Your task to perform on an android device: turn off notifications in google photos Image 0: 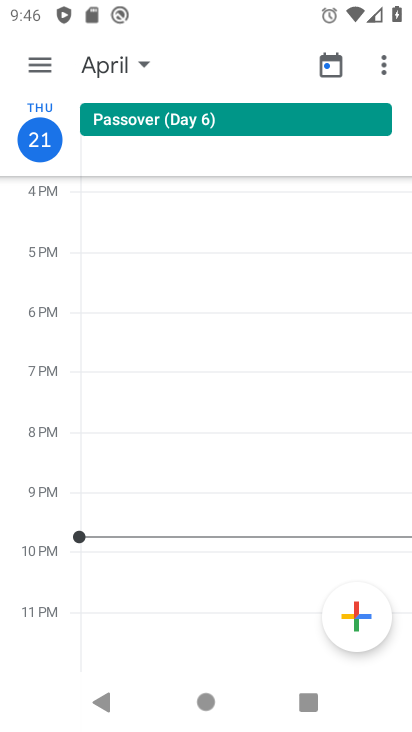
Step 0: press home button
Your task to perform on an android device: turn off notifications in google photos Image 1: 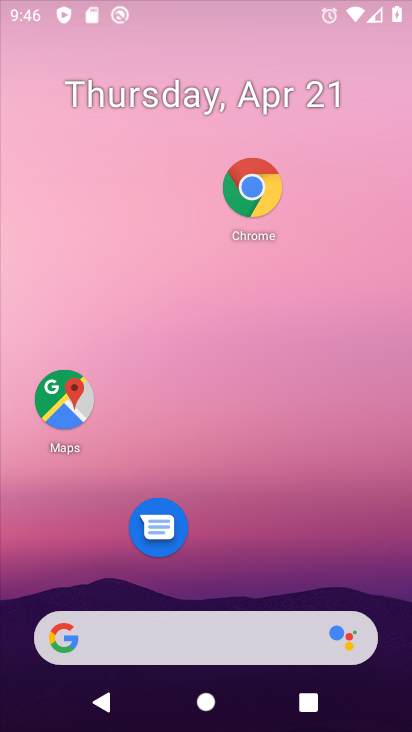
Step 1: drag from (259, 612) to (340, 105)
Your task to perform on an android device: turn off notifications in google photos Image 2: 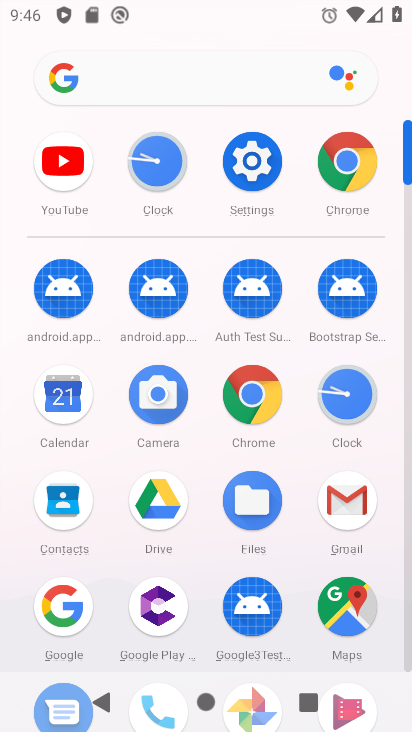
Step 2: click (410, 568)
Your task to perform on an android device: turn off notifications in google photos Image 3: 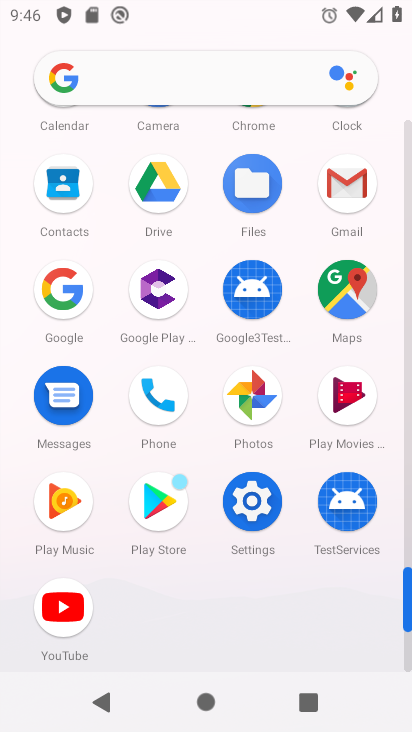
Step 3: click (249, 411)
Your task to perform on an android device: turn off notifications in google photos Image 4: 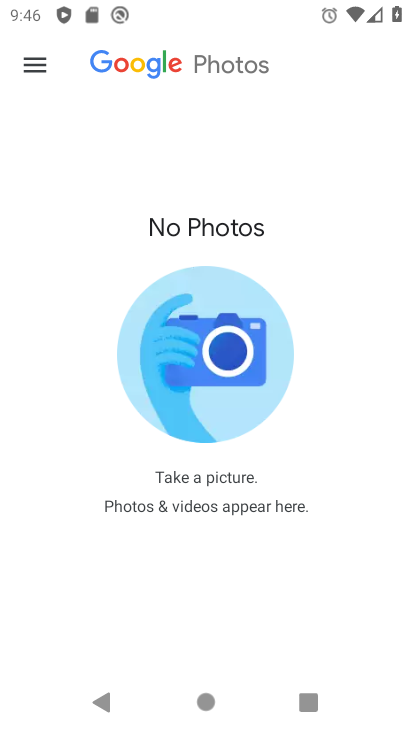
Step 4: click (44, 68)
Your task to perform on an android device: turn off notifications in google photos Image 5: 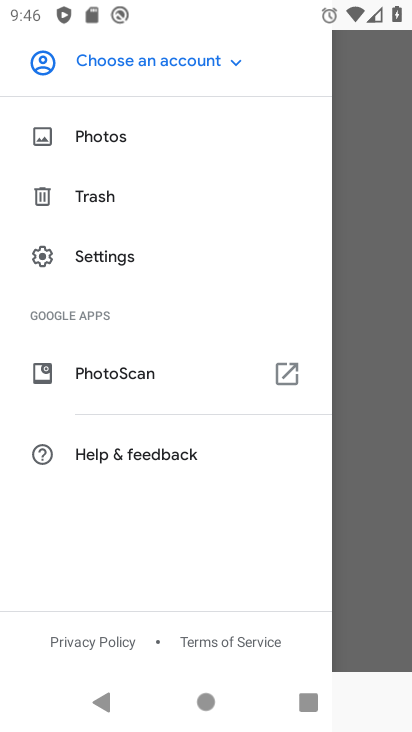
Step 5: click (145, 258)
Your task to perform on an android device: turn off notifications in google photos Image 6: 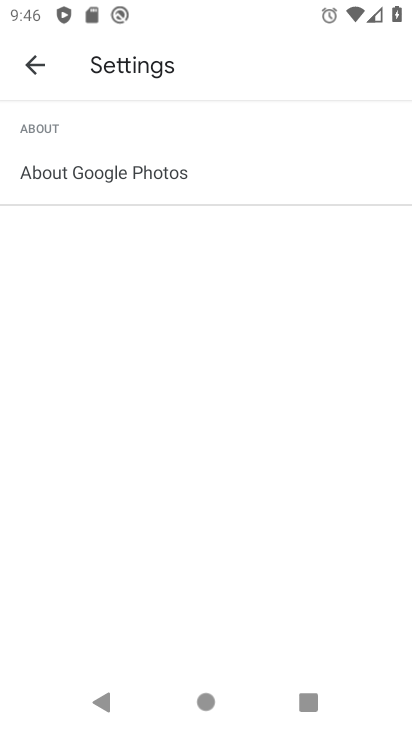
Step 6: click (39, 57)
Your task to perform on an android device: turn off notifications in google photos Image 7: 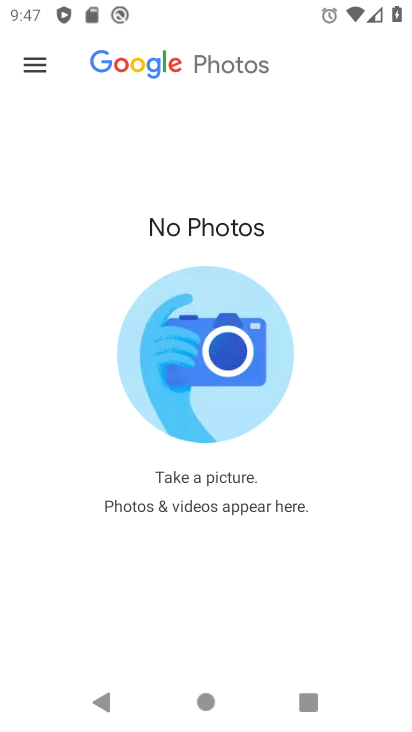
Step 7: click (30, 60)
Your task to perform on an android device: turn off notifications in google photos Image 8: 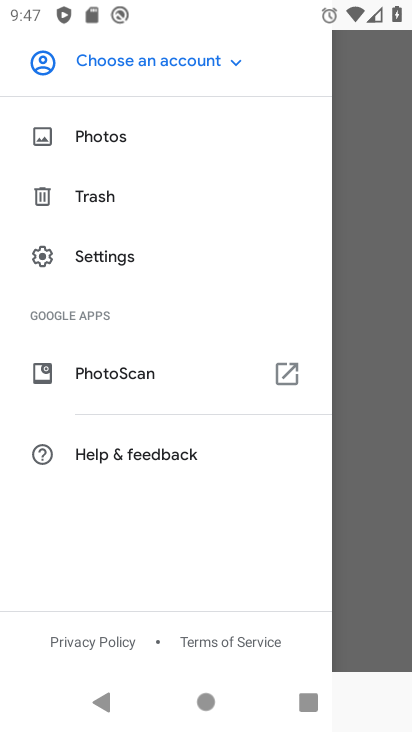
Step 8: click (122, 254)
Your task to perform on an android device: turn off notifications in google photos Image 9: 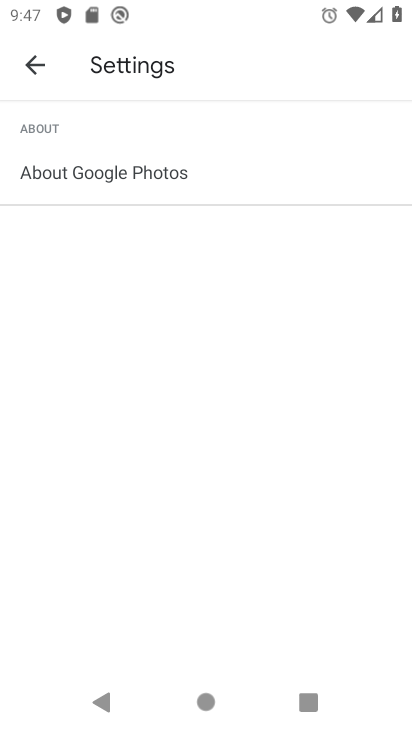
Step 9: task complete